Your task to perform on an android device: Go to Yahoo.com Image 0: 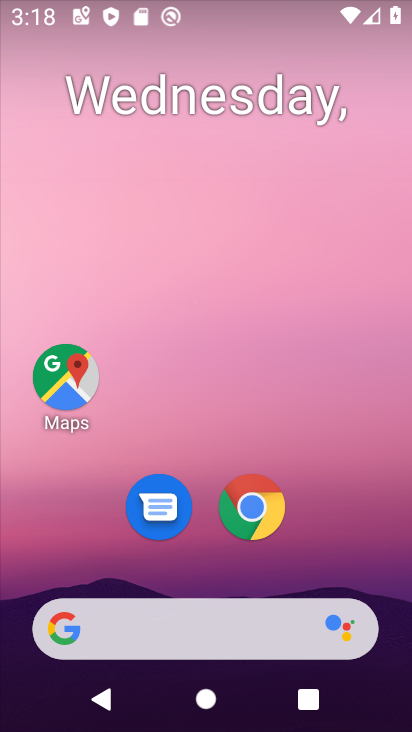
Step 0: click (269, 517)
Your task to perform on an android device: Go to Yahoo.com Image 1: 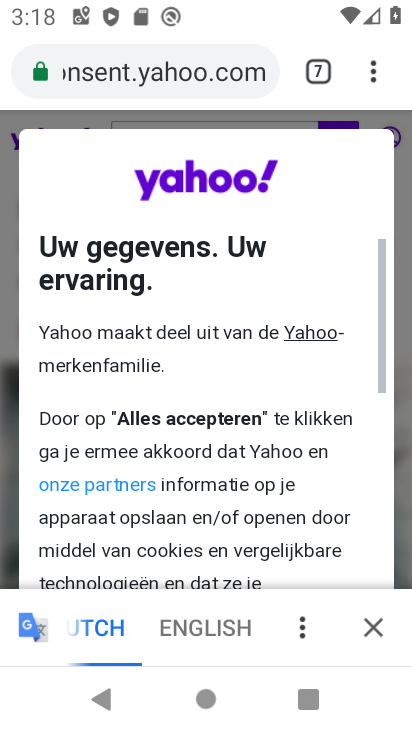
Step 1: task complete